Your task to perform on an android device: visit the assistant section in the google photos Image 0: 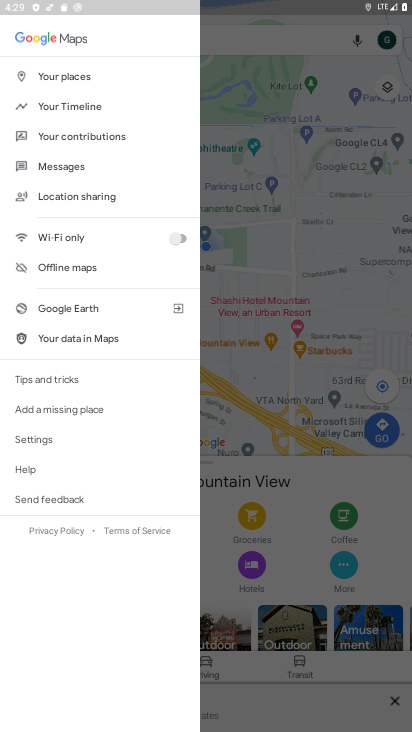
Step 0: press home button
Your task to perform on an android device: visit the assistant section in the google photos Image 1: 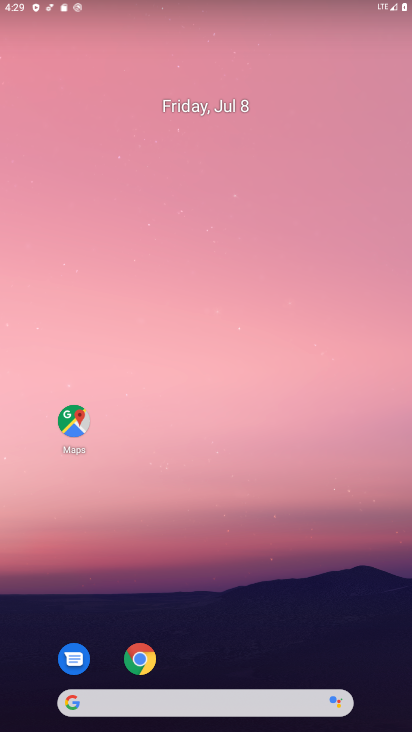
Step 1: drag from (314, 629) to (280, 175)
Your task to perform on an android device: visit the assistant section in the google photos Image 2: 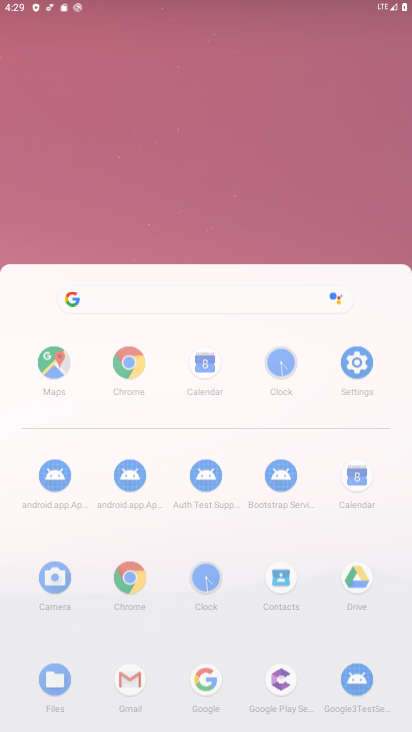
Step 2: click (259, 56)
Your task to perform on an android device: visit the assistant section in the google photos Image 3: 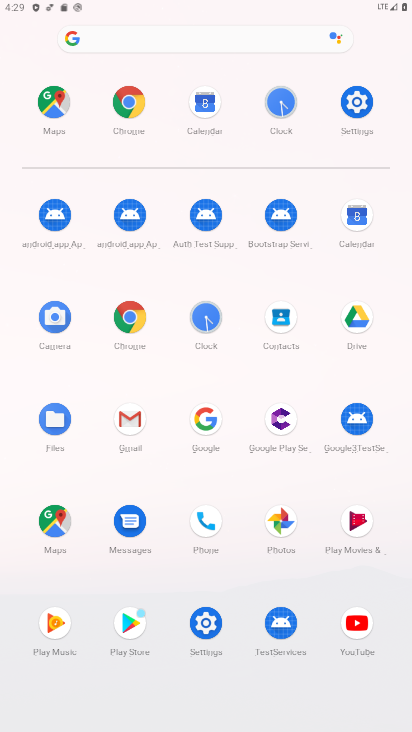
Step 3: click (287, 529)
Your task to perform on an android device: visit the assistant section in the google photos Image 4: 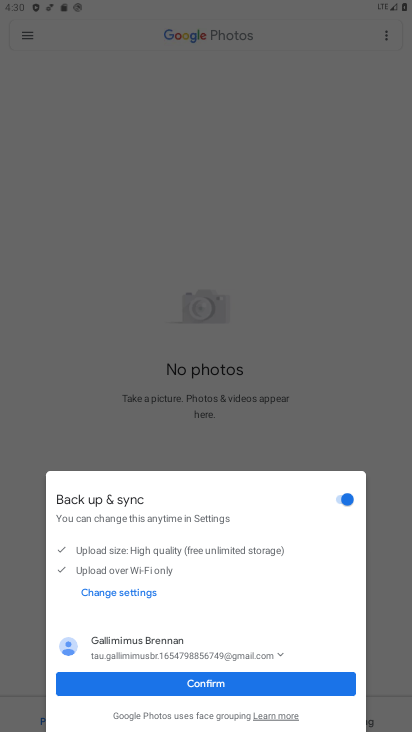
Step 4: click (188, 681)
Your task to perform on an android device: visit the assistant section in the google photos Image 5: 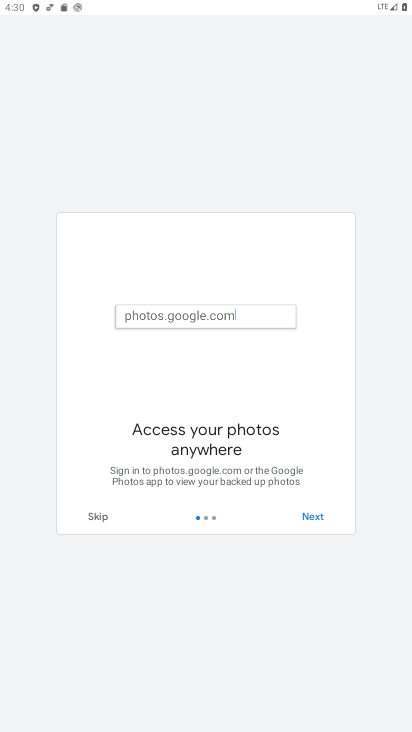
Step 5: click (305, 514)
Your task to perform on an android device: visit the assistant section in the google photos Image 6: 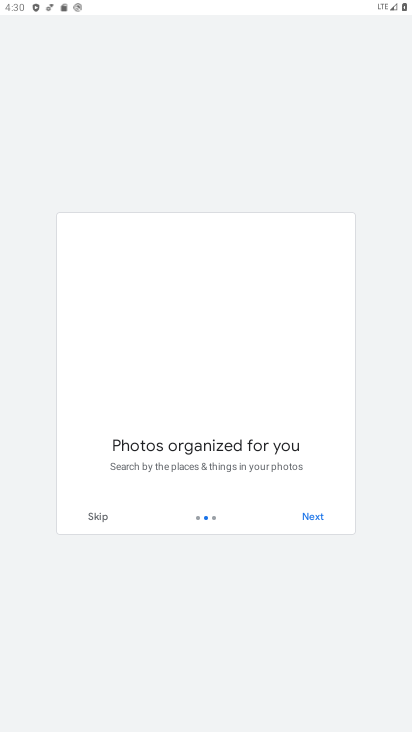
Step 6: click (305, 514)
Your task to perform on an android device: visit the assistant section in the google photos Image 7: 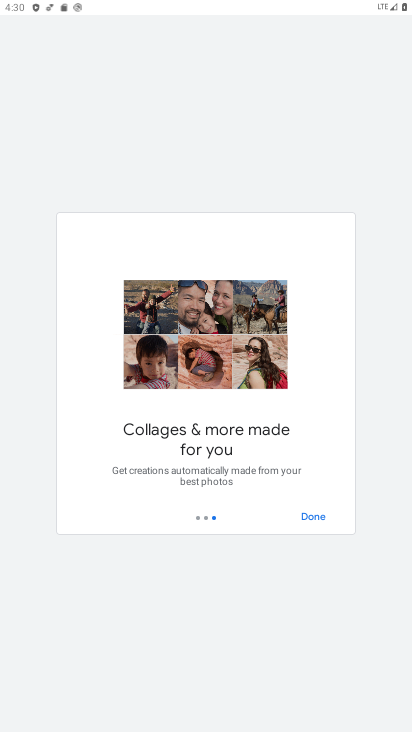
Step 7: click (305, 514)
Your task to perform on an android device: visit the assistant section in the google photos Image 8: 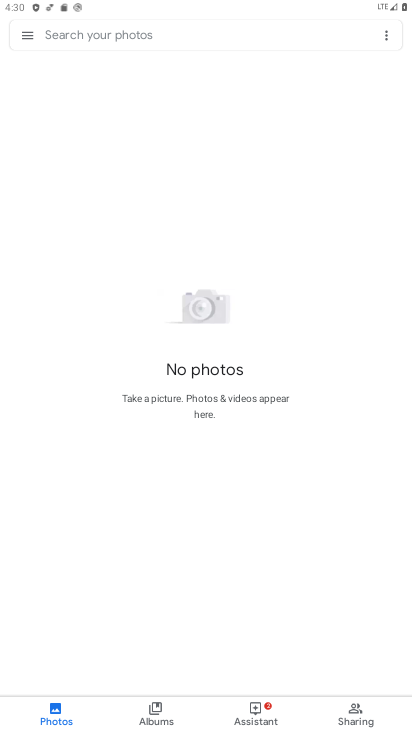
Step 8: click (253, 717)
Your task to perform on an android device: visit the assistant section in the google photos Image 9: 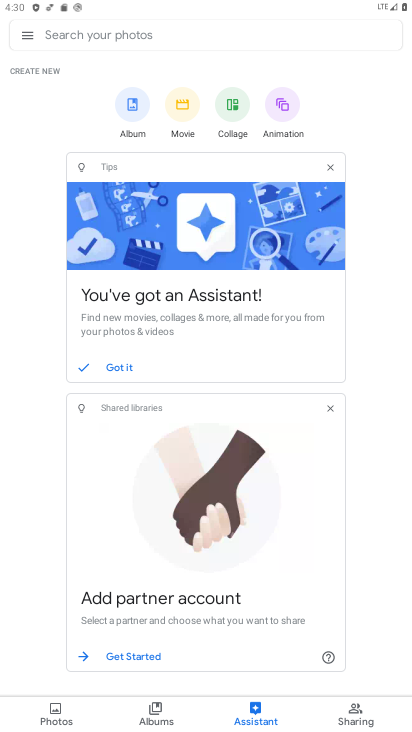
Step 9: task complete